Your task to perform on an android device: change the clock style Image 0: 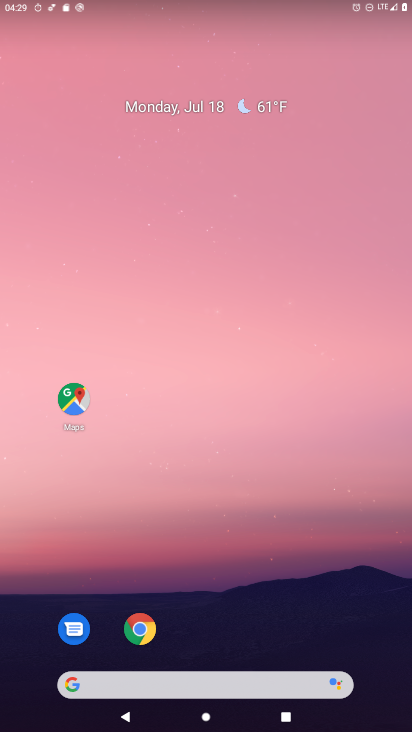
Step 0: drag from (229, 683) to (284, 160)
Your task to perform on an android device: change the clock style Image 1: 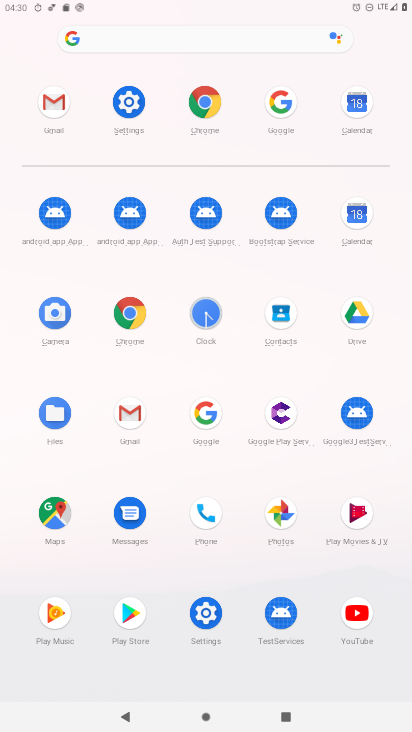
Step 1: click (205, 312)
Your task to perform on an android device: change the clock style Image 2: 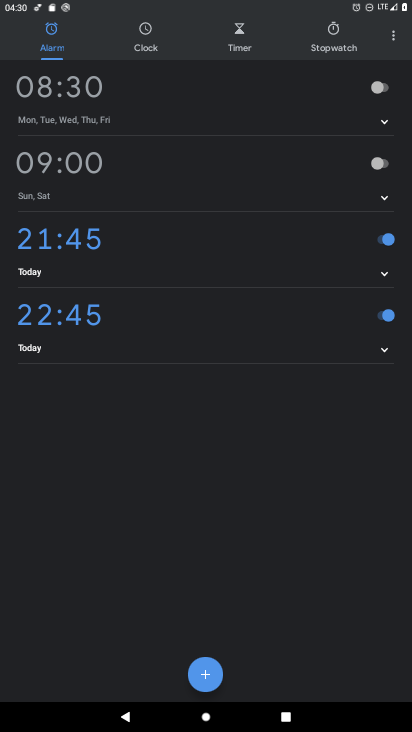
Step 2: click (392, 38)
Your task to perform on an android device: change the clock style Image 3: 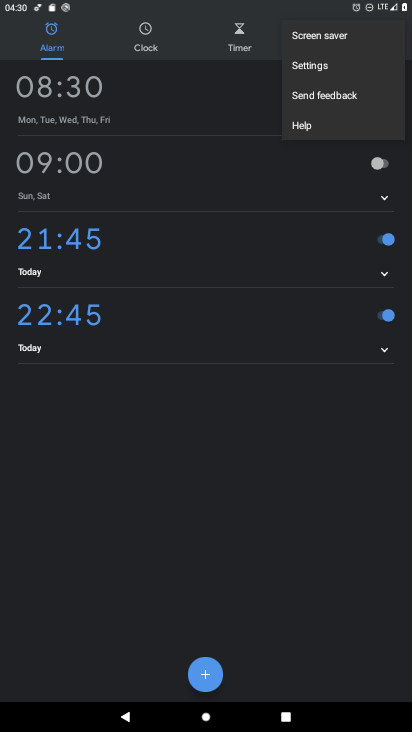
Step 3: click (301, 68)
Your task to perform on an android device: change the clock style Image 4: 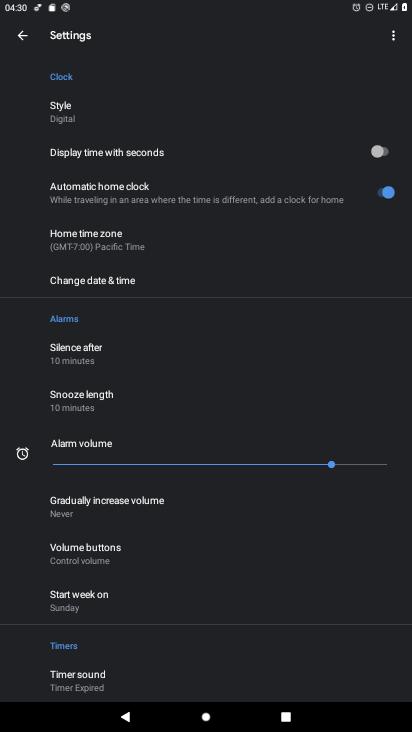
Step 4: click (73, 105)
Your task to perform on an android device: change the clock style Image 5: 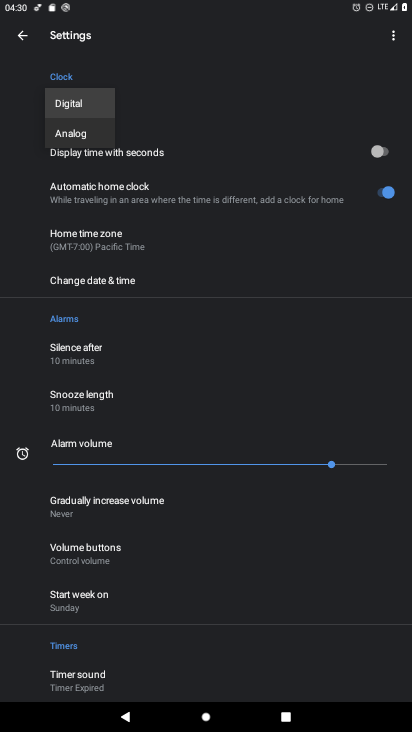
Step 5: click (70, 137)
Your task to perform on an android device: change the clock style Image 6: 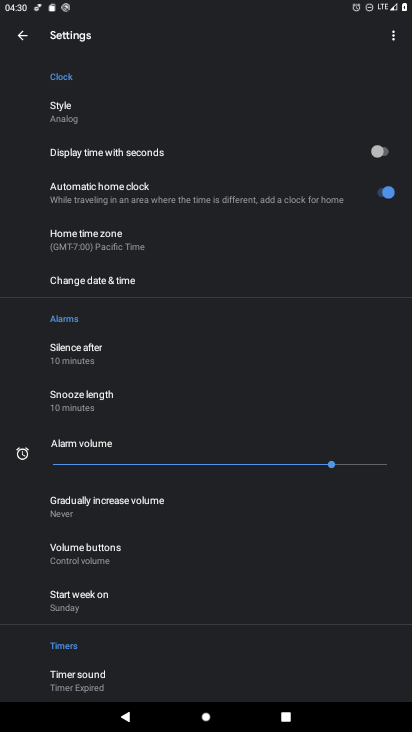
Step 6: task complete